Your task to perform on an android device: turn off wifi Image 0: 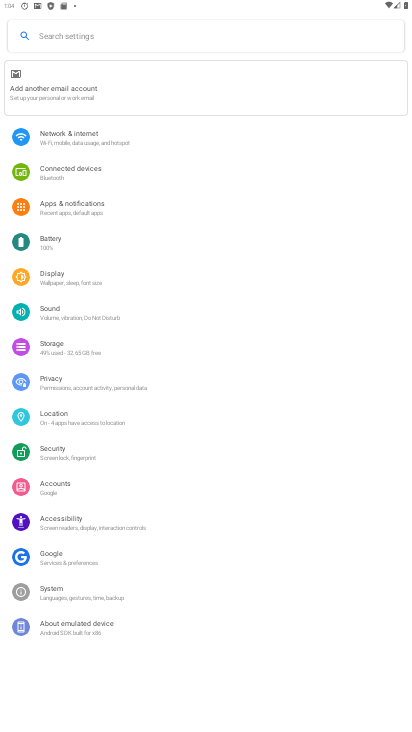
Step 0: press home button
Your task to perform on an android device: turn off wifi Image 1: 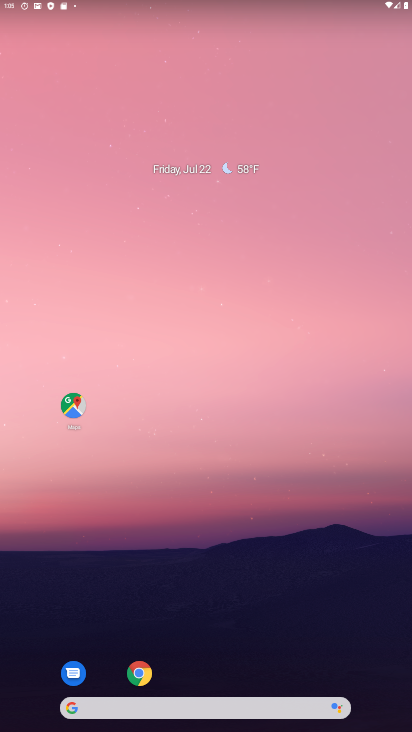
Step 1: drag from (205, 653) to (187, 96)
Your task to perform on an android device: turn off wifi Image 2: 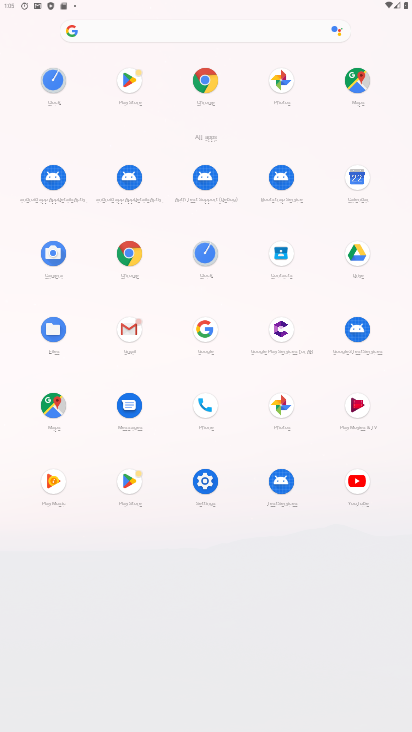
Step 2: click (198, 478)
Your task to perform on an android device: turn off wifi Image 3: 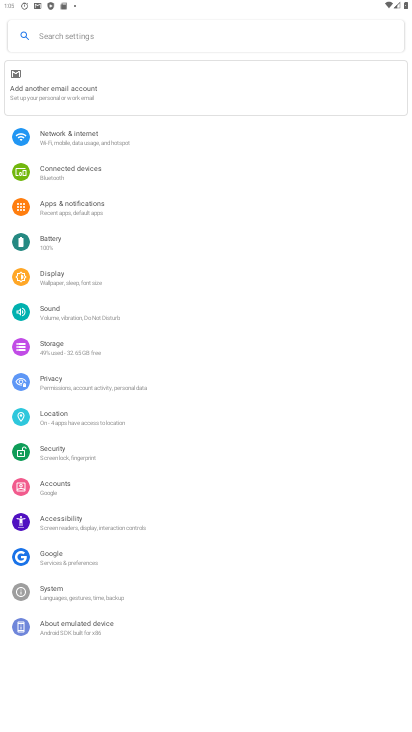
Step 3: click (96, 126)
Your task to perform on an android device: turn off wifi Image 4: 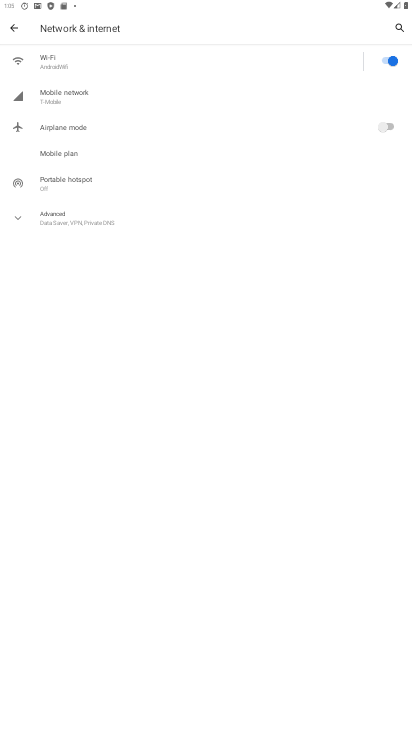
Step 4: click (390, 59)
Your task to perform on an android device: turn off wifi Image 5: 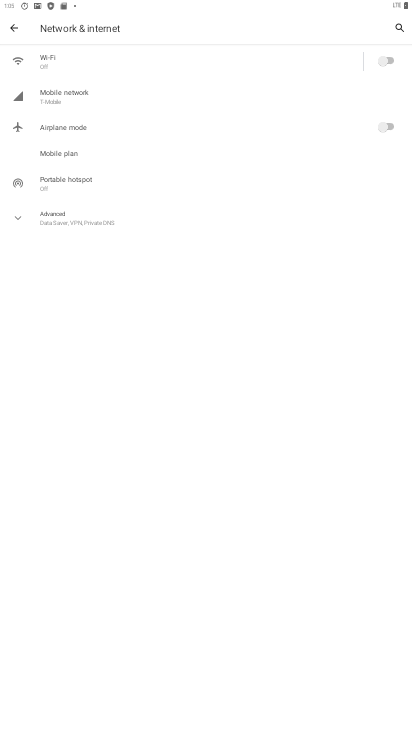
Step 5: task complete